Your task to perform on an android device: Go to Maps Image 0: 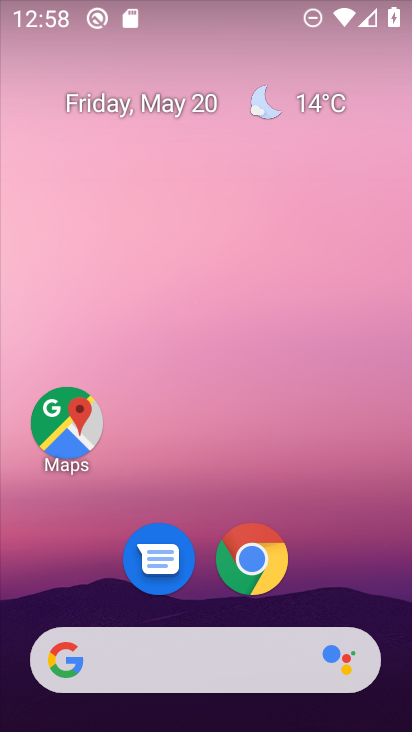
Step 0: drag from (381, 569) to (362, 327)
Your task to perform on an android device: Go to Maps Image 1: 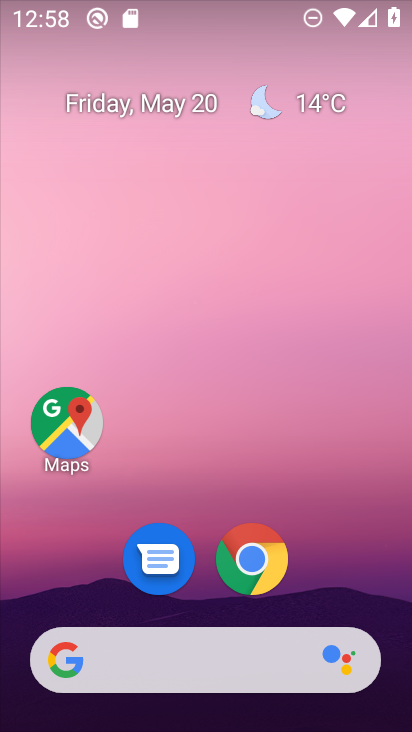
Step 1: click (67, 431)
Your task to perform on an android device: Go to Maps Image 2: 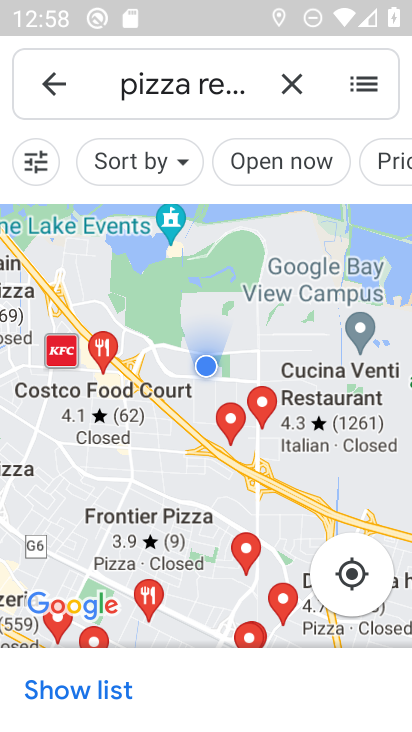
Step 2: task complete